Your task to perform on an android device: visit the assistant section in the google photos Image 0: 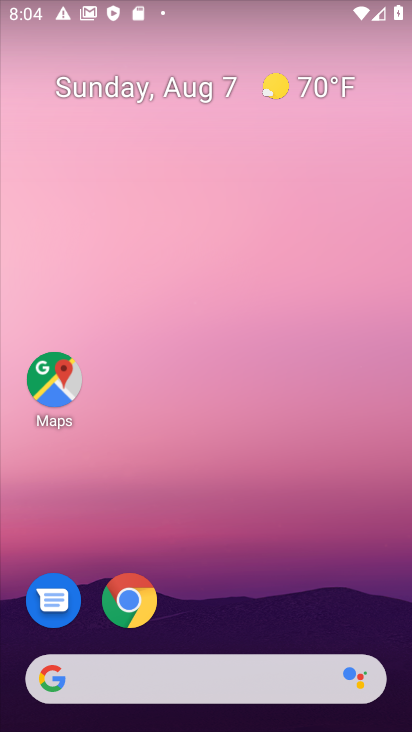
Step 0: drag from (220, 380) to (221, 1)
Your task to perform on an android device: visit the assistant section in the google photos Image 1: 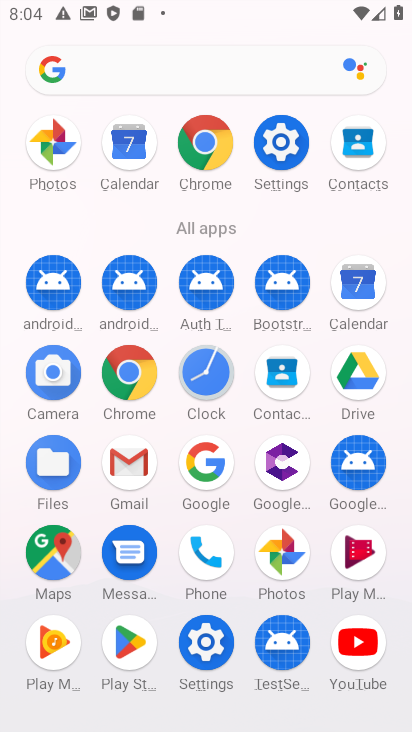
Step 1: click (279, 551)
Your task to perform on an android device: visit the assistant section in the google photos Image 2: 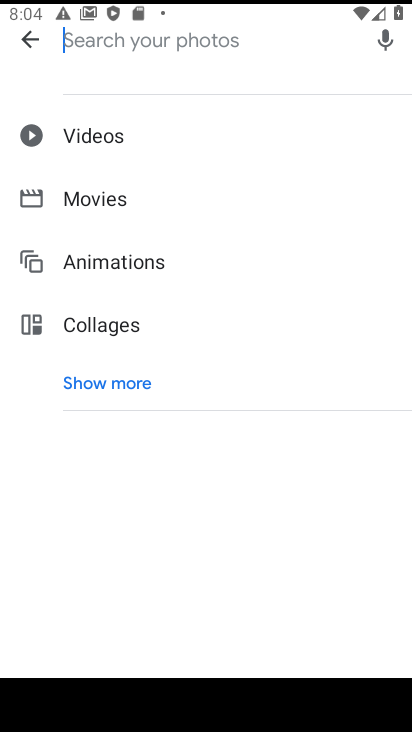
Step 2: click (31, 40)
Your task to perform on an android device: visit the assistant section in the google photos Image 3: 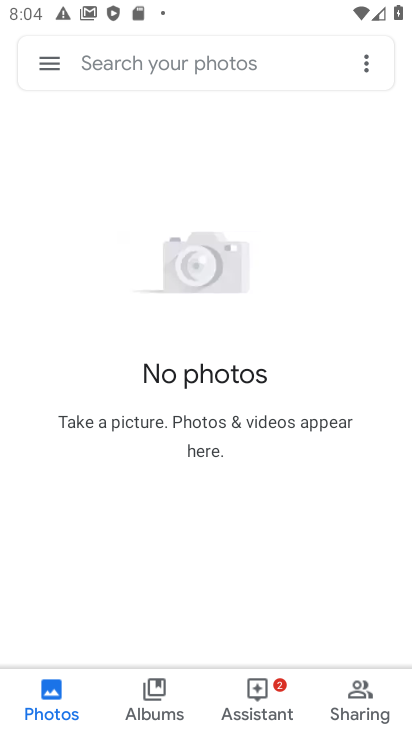
Step 3: click (259, 687)
Your task to perform on an android device: visit the assistant section in the google photos Image 4: 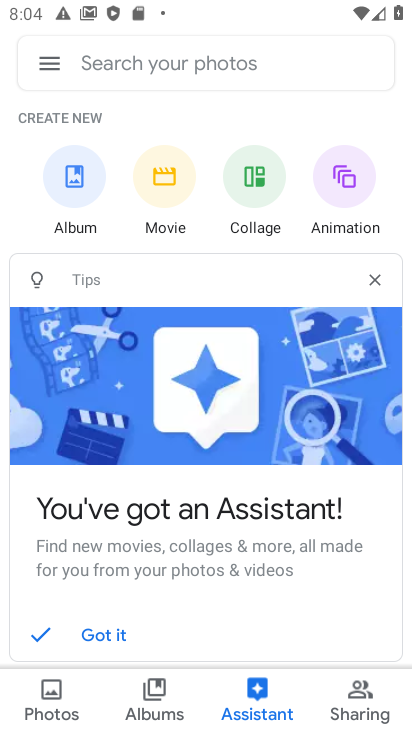
Step 4: task complete